Your task to perform on an android device: Open settings Image 0: 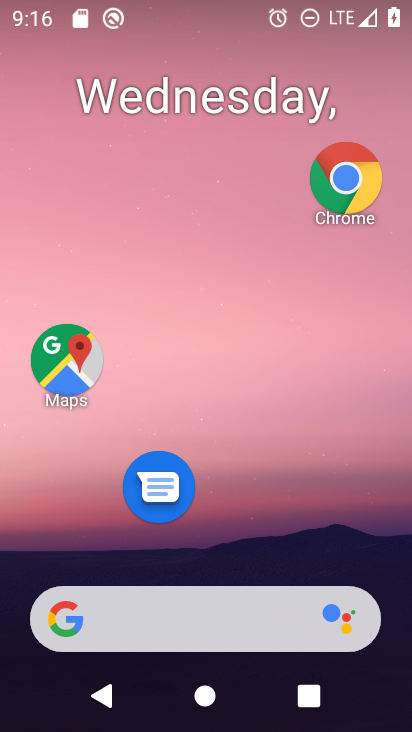
Step 0: drag from (240, 705) to (254, 221)
Your task to perform on an android device: Open settings Image 1: 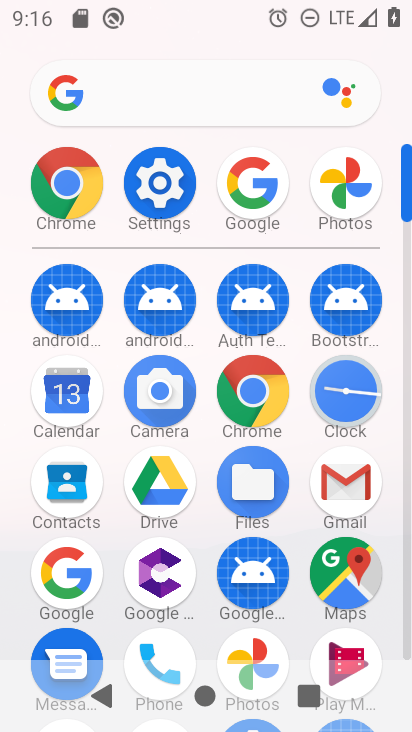
Step 1: click (146, 209)
Your task to perform on an android device: Open settings Image 2: 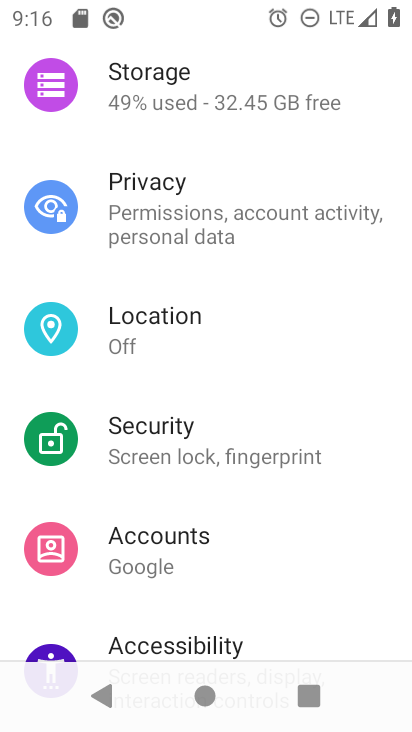
Step 2: task complete